Your task to perform on an android device: change the clock style Image 0: 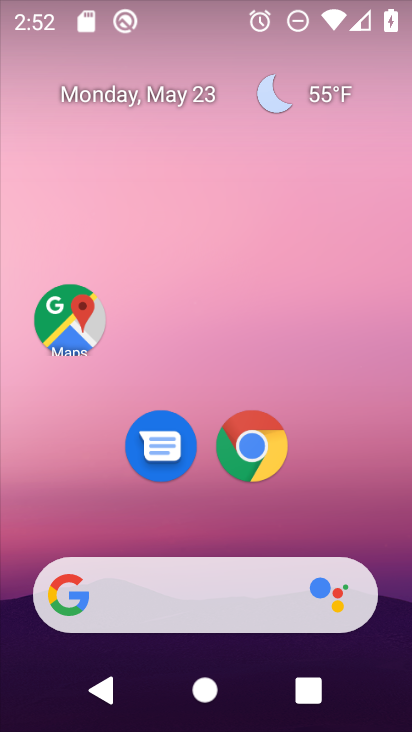
Step 0: click (73, 334)
Your task to perform on an android device: change the clock style Image 1: 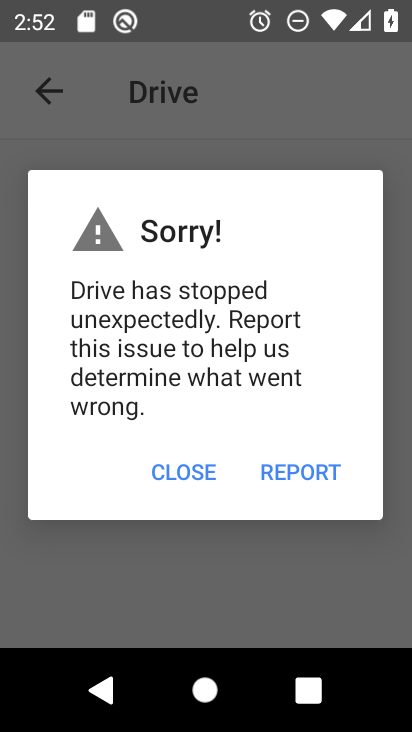
Step 1: click (211, 470)
Your task to perform on an android device: change the clock style Image 2: 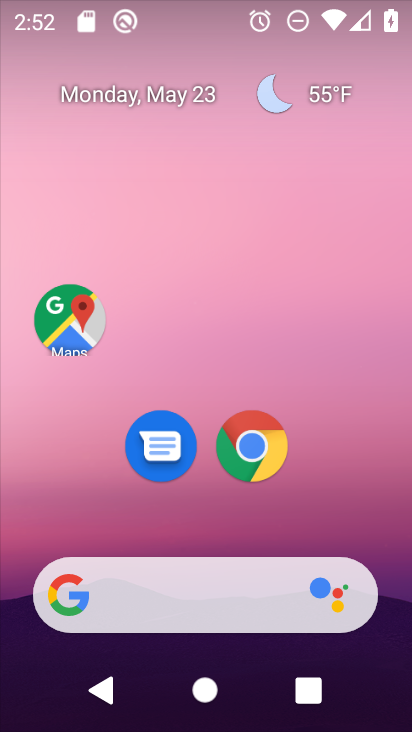
Step 2: drag from (221, 546) to (214, 242)
Your task to perform on an android device: change the clock style Image 3: 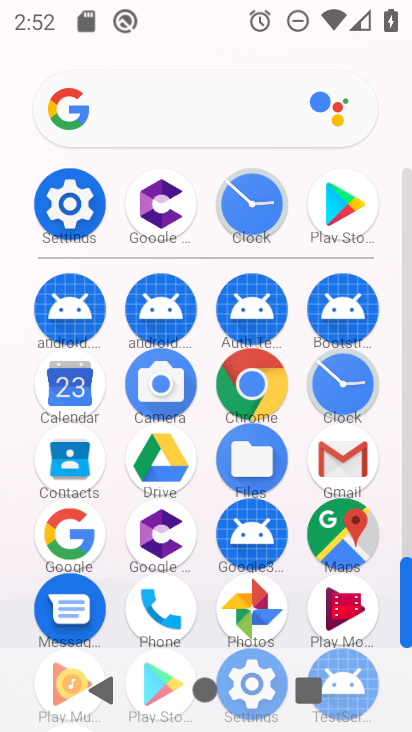
Step 3: click (349, 398)
Your task to perform on an android device: change the clock style Image 4: 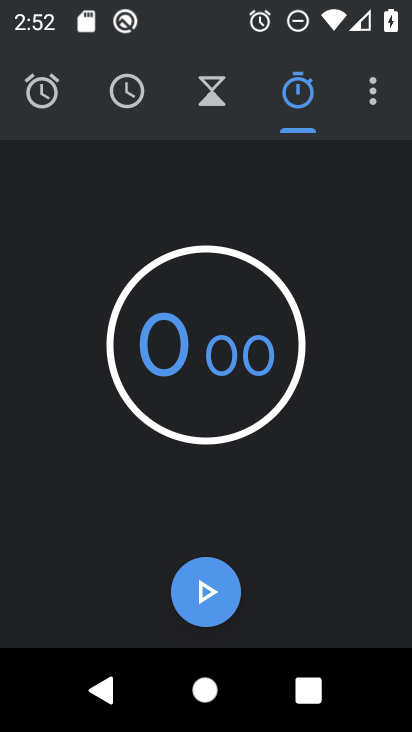
Step 4: click (369, 83)
Your task to perform on an android device: change the clock style Image 5: 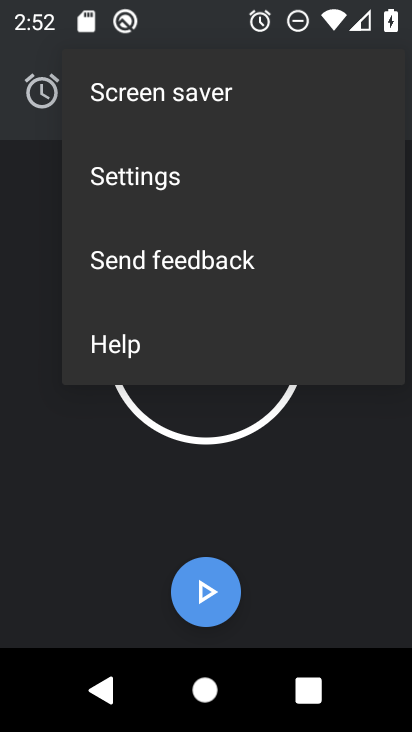
Step 5: click (209, 179)
Your task to perform on an android device: change the clock style Image 6: 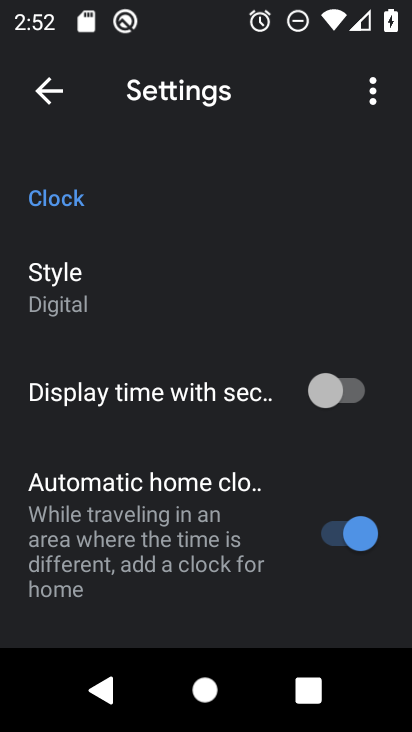
Step 6: click (101, 277)
Your task to perform on an android device: change the clock style Image 7: 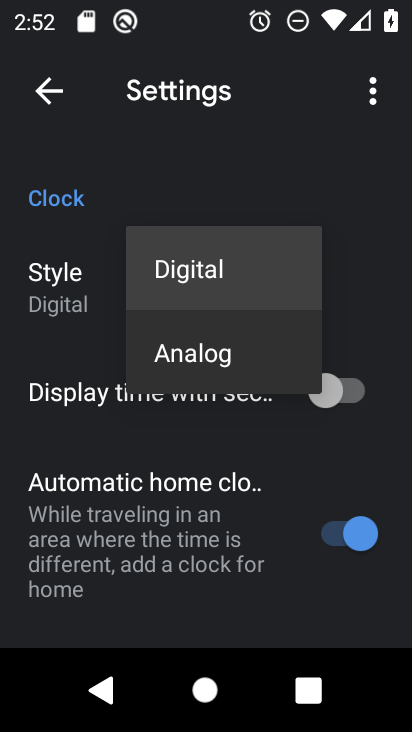
Step 7: click (158, 350)
Your task to perform on an android device: change the clock style Image 8: 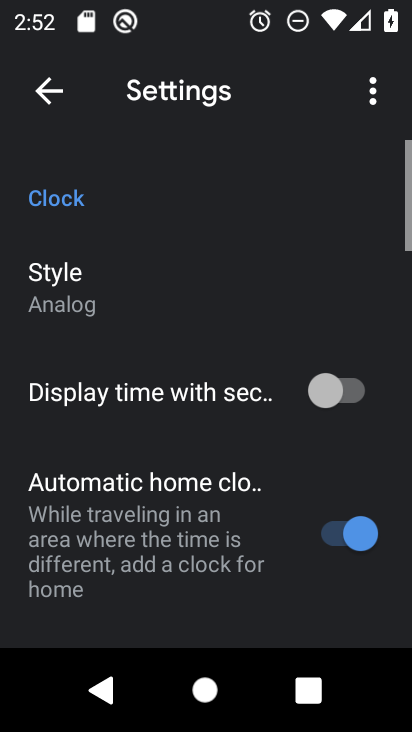
Step 8: task complete